Your task to perform on an android device: Find coffee shops on Maps Image 0: 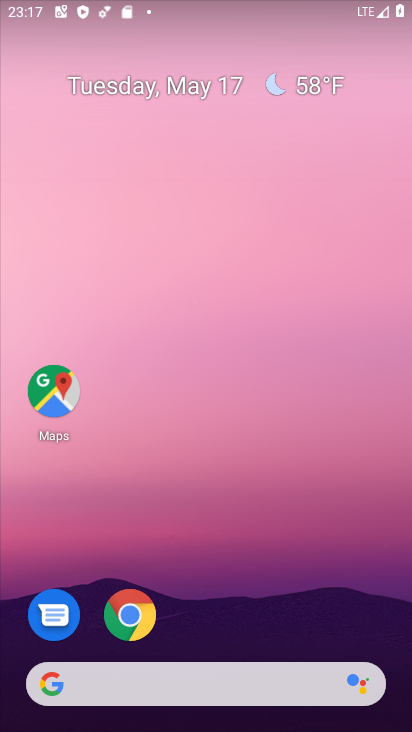
Step 0: click (70, 396)
Your task to perform on an android device: Find coffee shops on Maps Image 1: 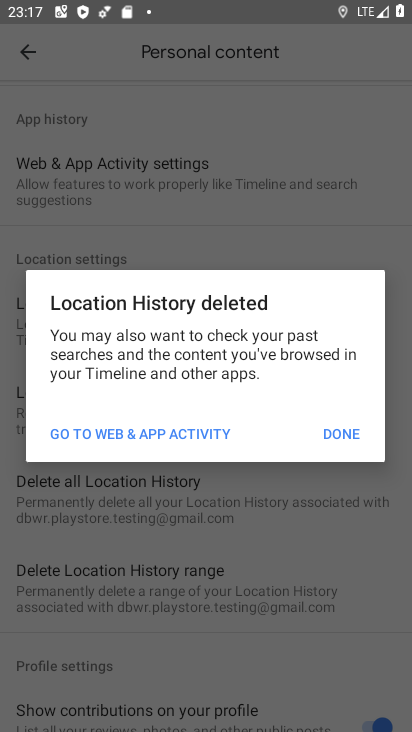
Step 1: click (344, 436)
Your task to perform on an android device: Find coffee shops on Maps Image 2: 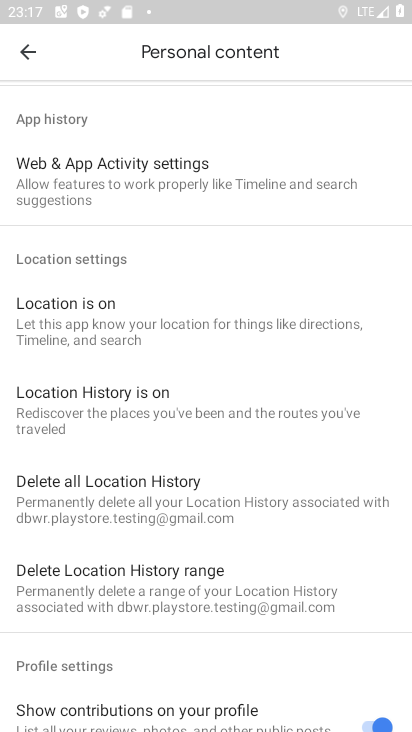
Step 2: click (21, 52)
Your task to perform on an android device: Find coffee shops on Maps Image 3: 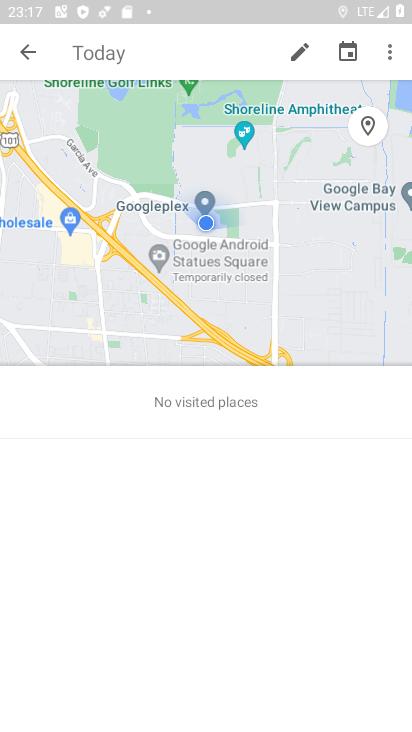
Step 3: press home button
Your task to perform on an android device: Find coffee shops on Maps Image 4: 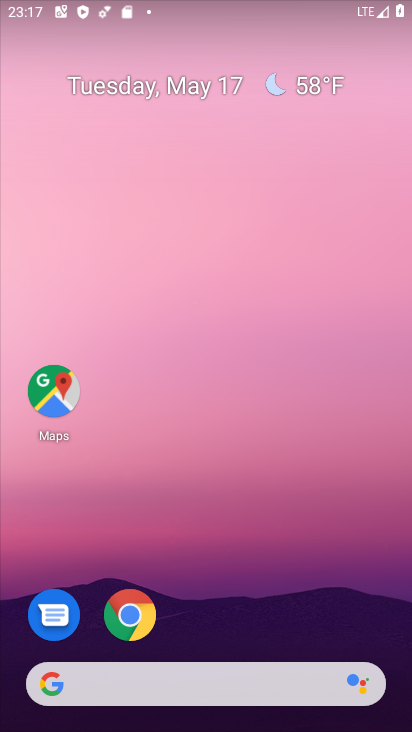
Step 4: click (57, 420)
Your task to perform on an android device: Find coffee shops on Maps Image 5: 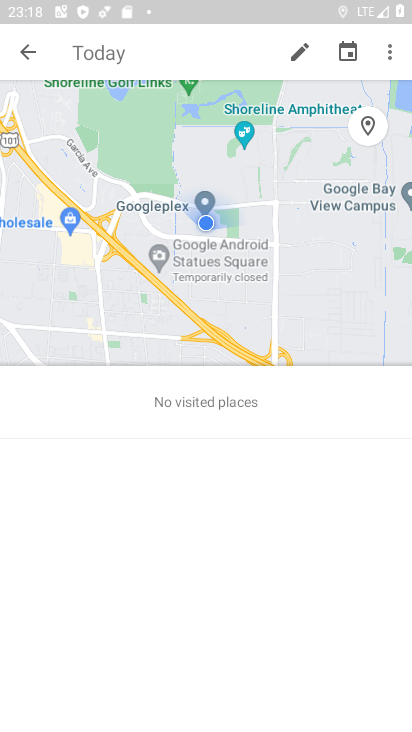
Step 5: click (23, 45)
Your task to perform on an android device: Find coffee shops on Maps Image 6: 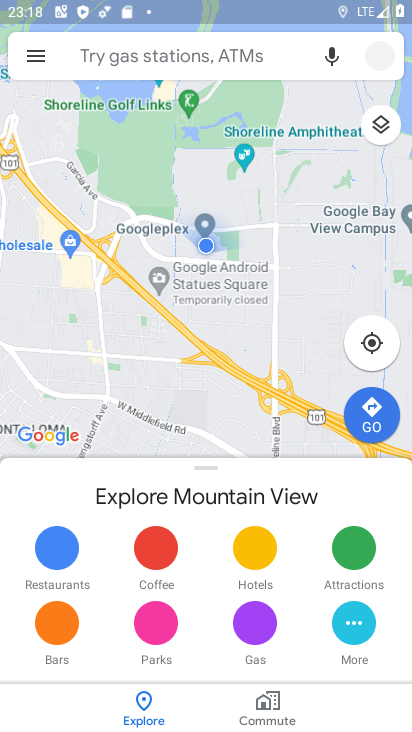
Step 6: click (120, 49)
Your task to perform on an android device: Find coffee shops on Maps Image 7: 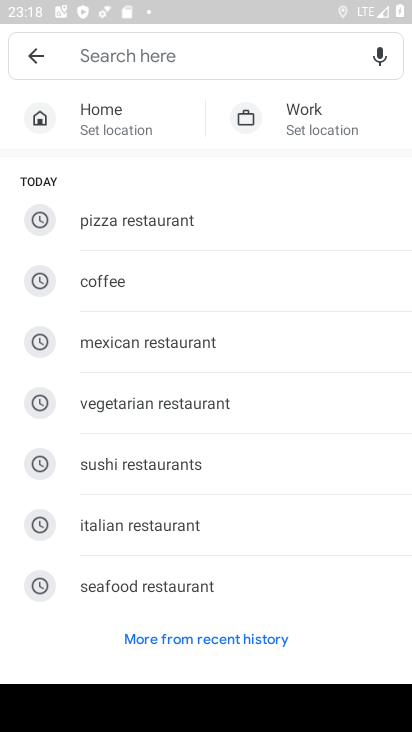
Step 7: type "coffee shops"
Your task to perform on an android device: Find coffee shops on Maps Image 8: 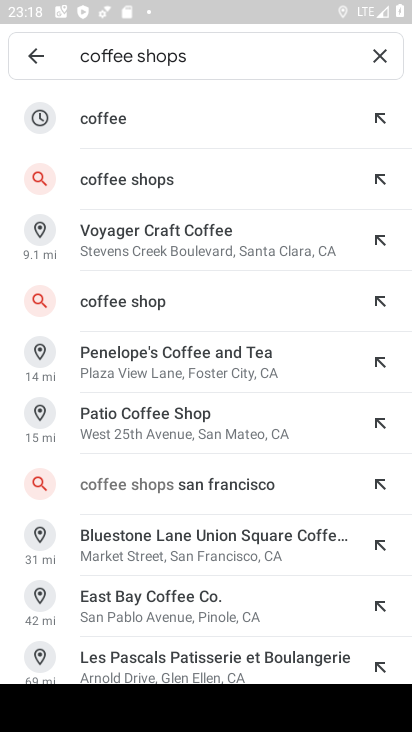
Step 8: click (132, 183)
Your task to perform on an android device: Find coffee shops on Maps Image 9: 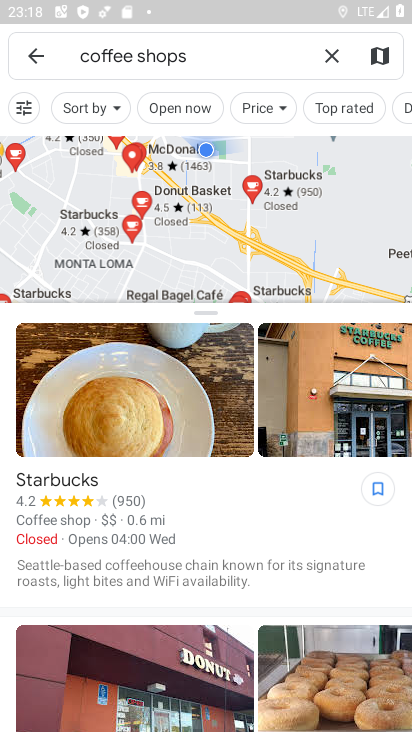
Step 9: task complete